Your task to perform on an android device: Open wifi settings Image 0: 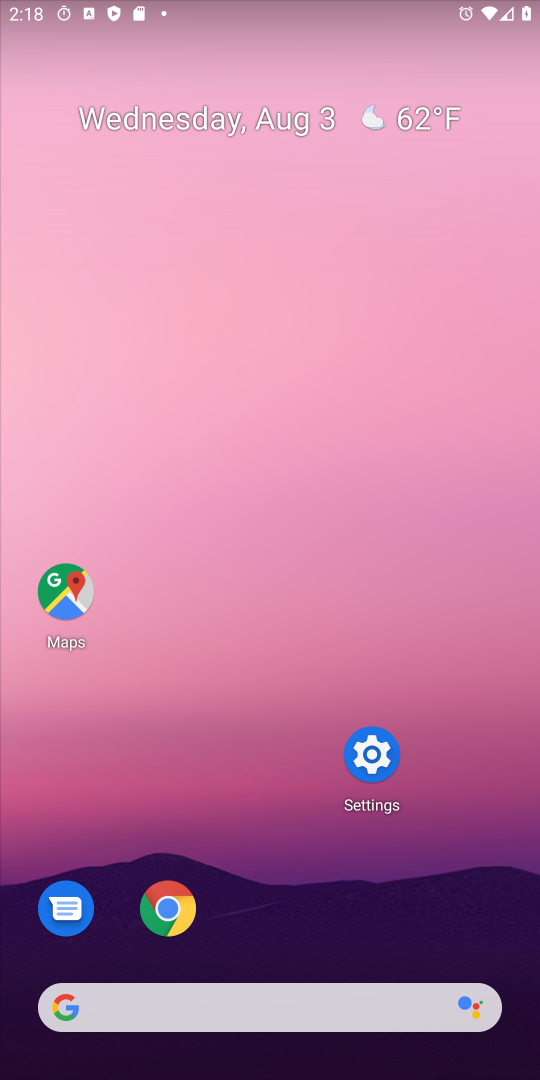
Step 0: drag from (297, 920) to (306, 216)
Your task to perform on an android device: Open wifi settings Image 1: 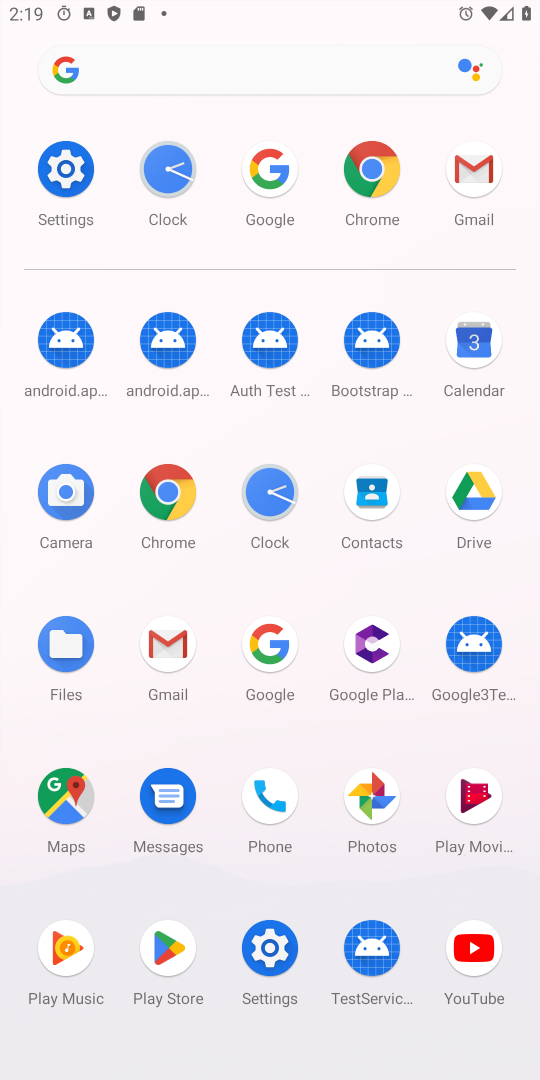
Step 1: click (273, 961)
Your task to perform on an android device: Open wifi settings Image 2: 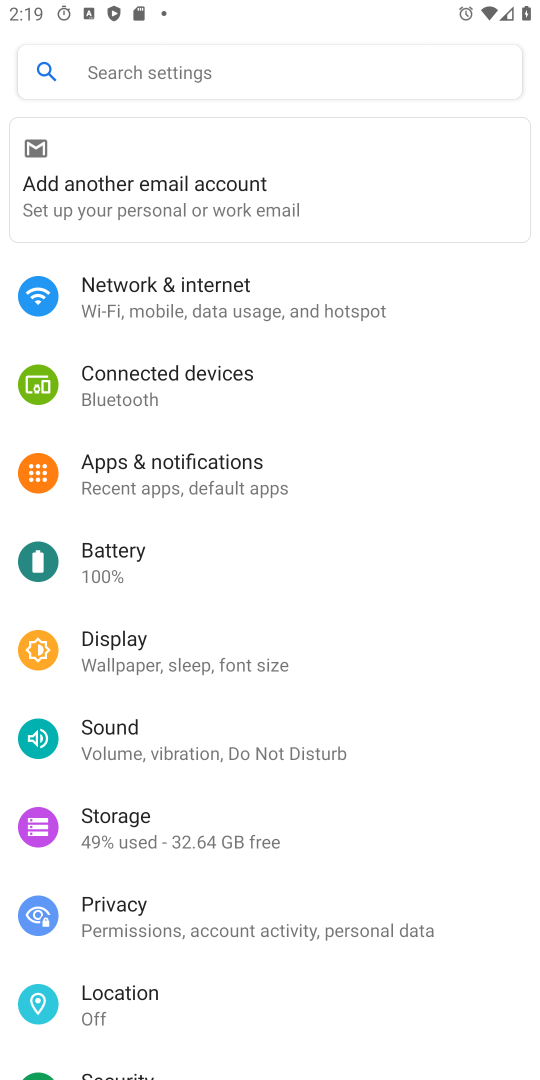
Step 2: click (309, 296)
Your task to perform on an android device: Open wifi settings Image 3: 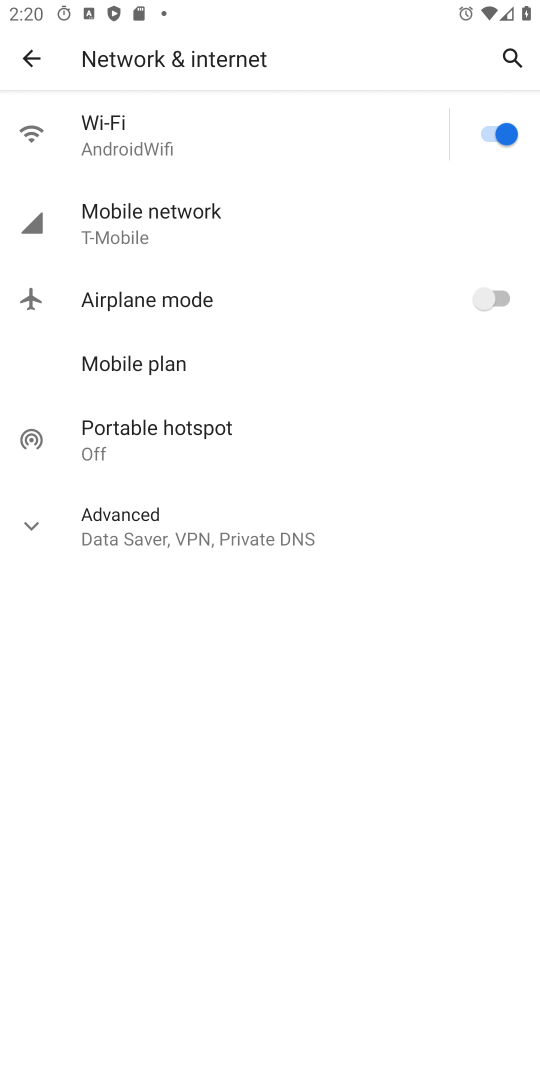
Step 3: click (281, 152)
Your task to perform on an android device: Open wifi settings Image 4: 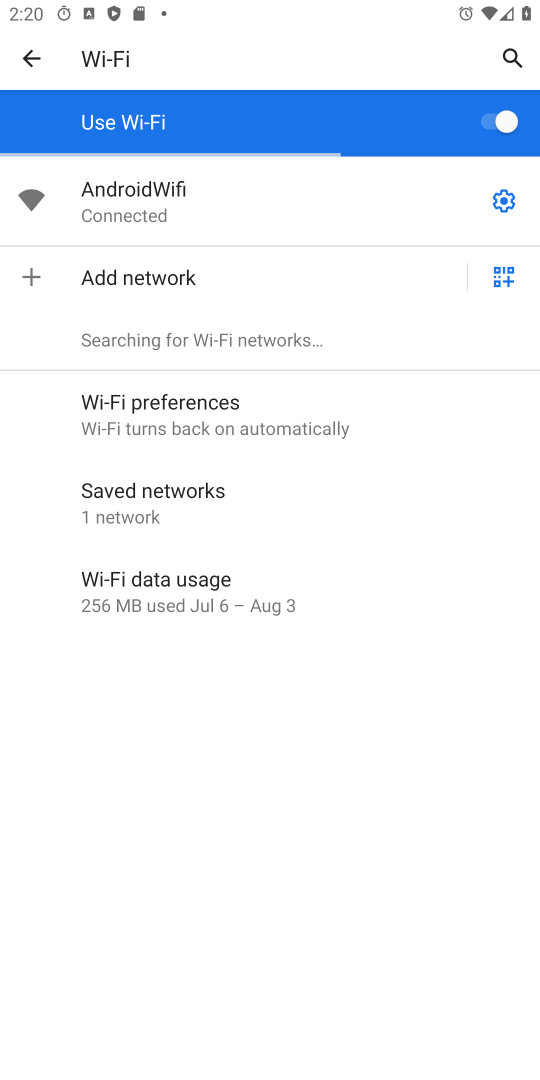
Step 4: task complete